Your task to perform on an android device: set the stopwatch Image 0: 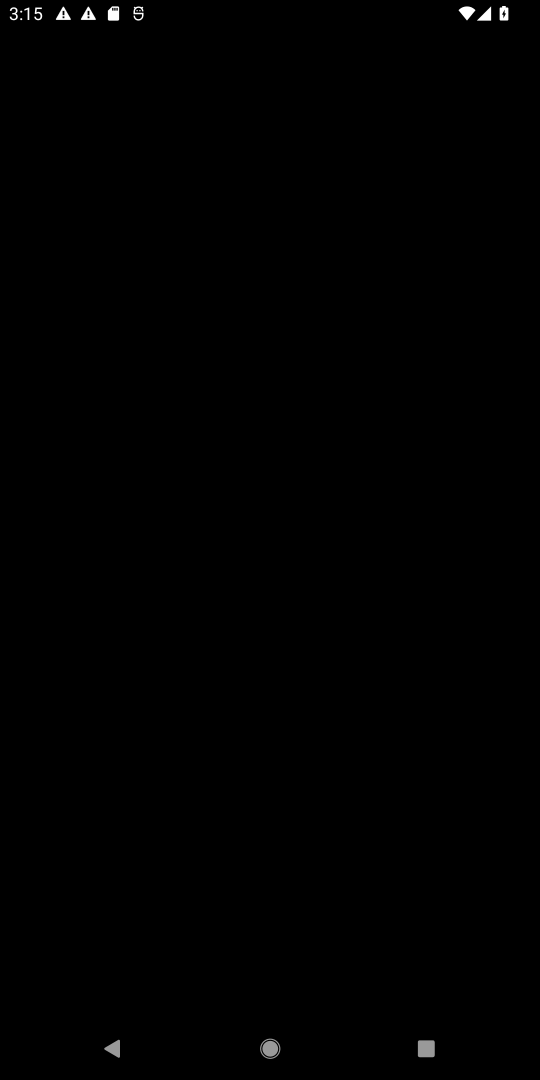
Step 0: press home button
Your task to perform on an android device: set the stopwatch Image 1: 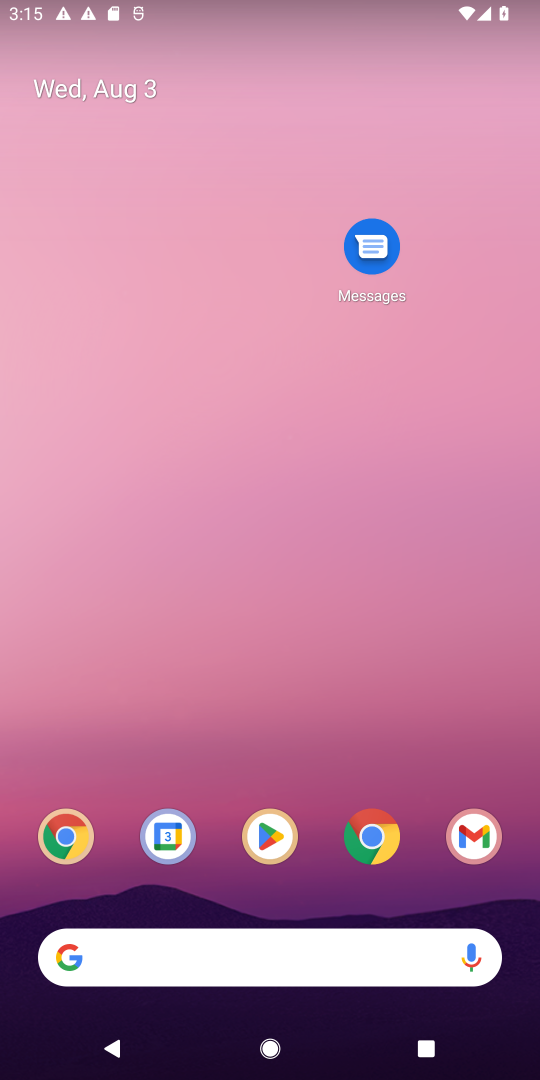
Step 1: drag from (119, 906) to (382, 243)
Your task to perform on an android device: set the stopwatch Image 2: 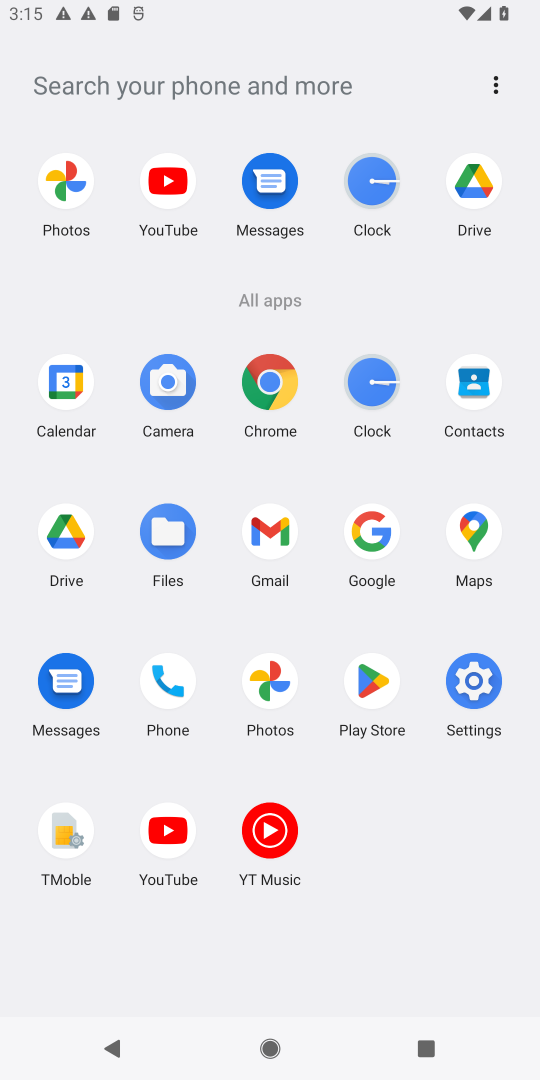
Step 2: click (379, 403)
Your task to perform on an android device: set the stopwatch Image 3: 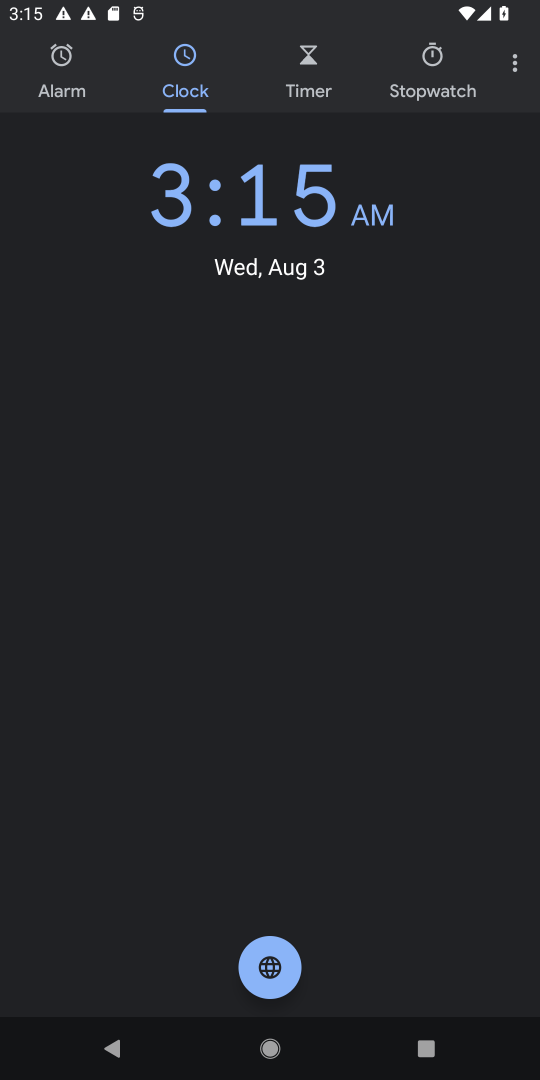
Step 3: click (440, 76)
Your task to perform on an android device: set the stopwatch Image 4: 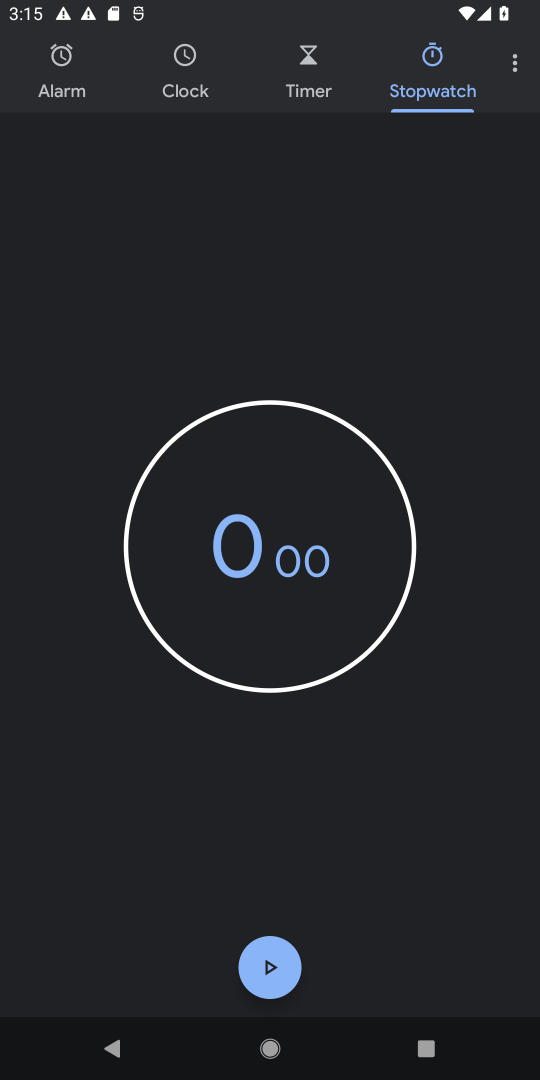
Step 4: click (250, 562)
Your task to perform on an android device: set the stopwatch Image 5: 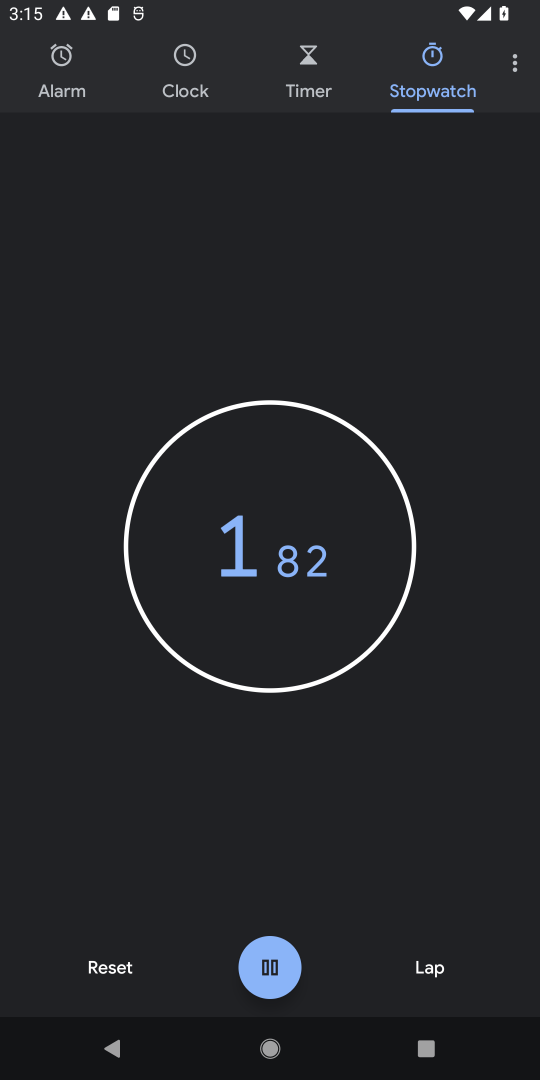
Step 5: click (275, 983)
Your task to perform on an android device: set the stopwatch Image 6: 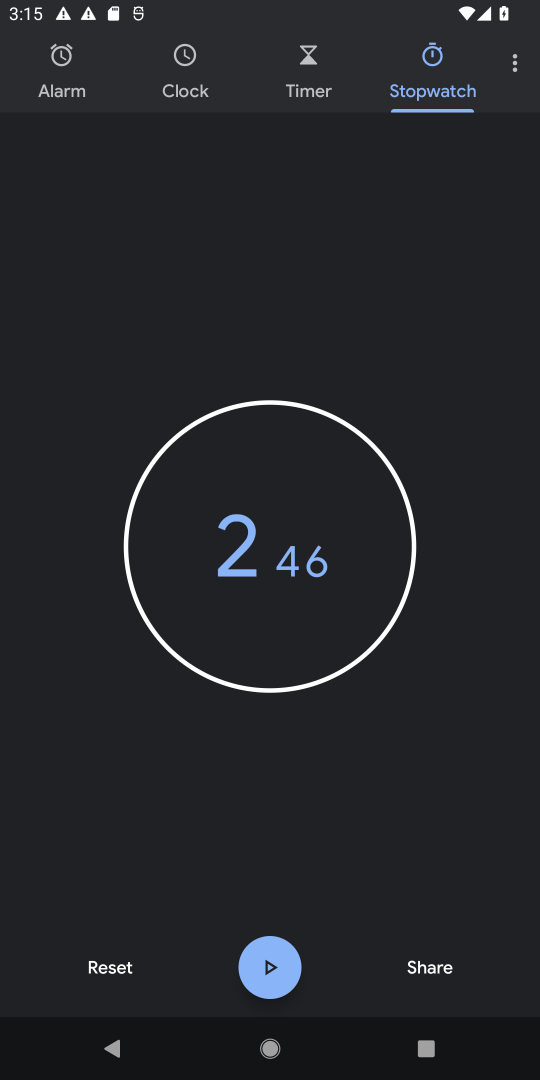
Step 6: task complete